Your task to perform on an android device: Go to network settings Image 0: 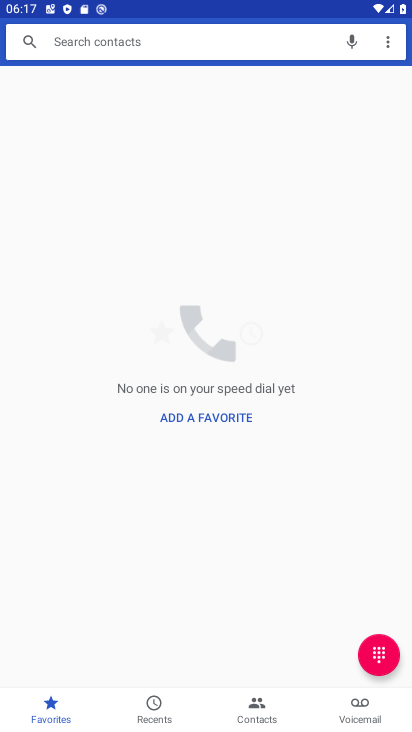
Step 0: press home button
Your task to perform on an android device: Go to network settings Image 1: 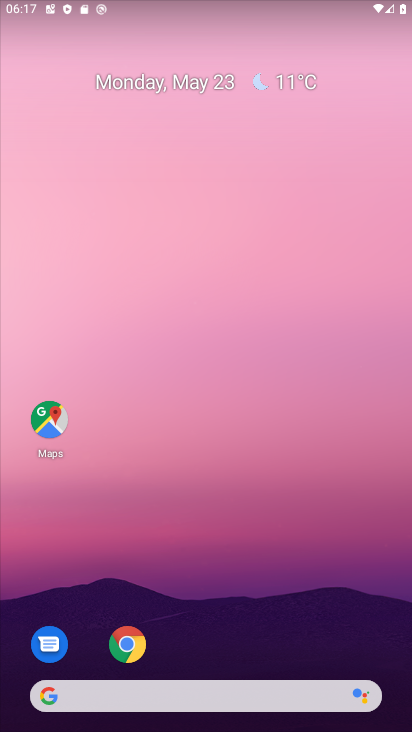
Step 1: drag from (318, 584) to (304, 78)
Your task to perform on an android device: Go to network settings Image 2: 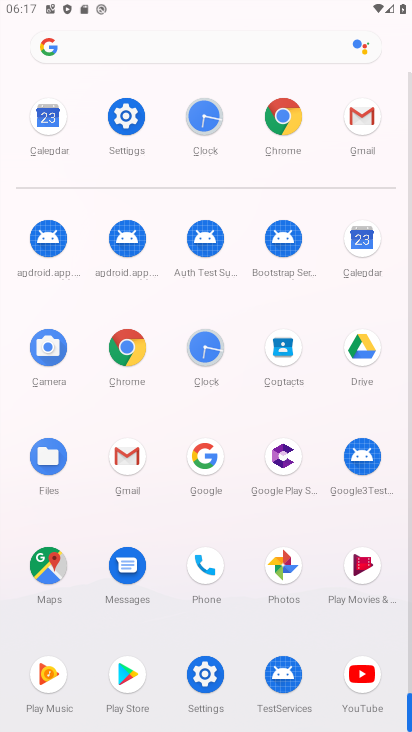
Step 2: click (191, 669)
Your task to perform on an android device: Go to network settings Image 3: 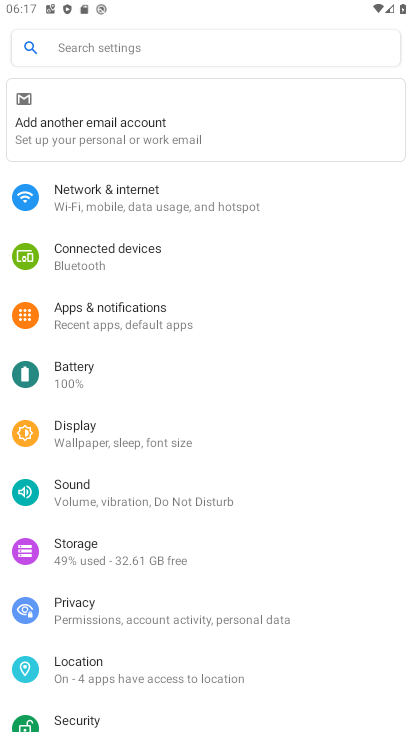
Step 3: click (86, 222)
Your task to perform on an android device: Go to network settings Image 4: 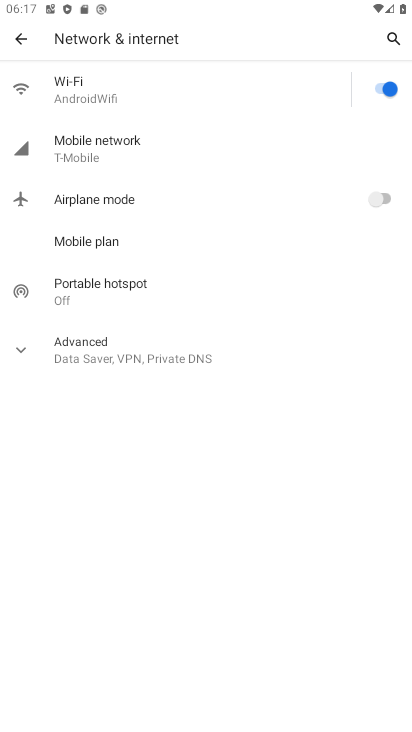
Step 4: task complete